Your task to perform on an android device: search for starred emails in the gmail app Image 0: 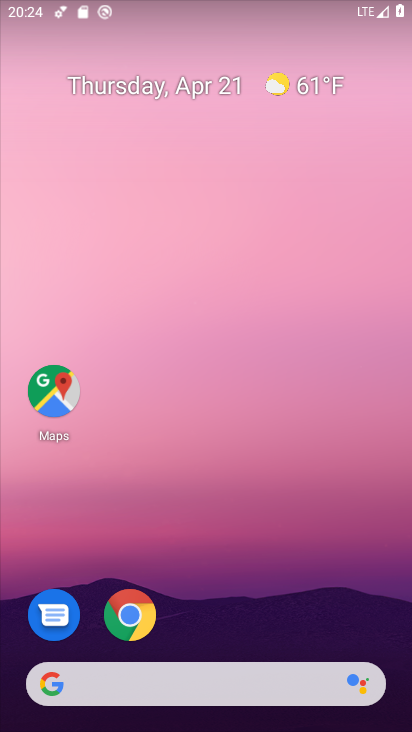
Step 0: drag from (249, 616) to (320, 126)
Your task to perform on an android device: search for starred emails in the gmail app Image 1: 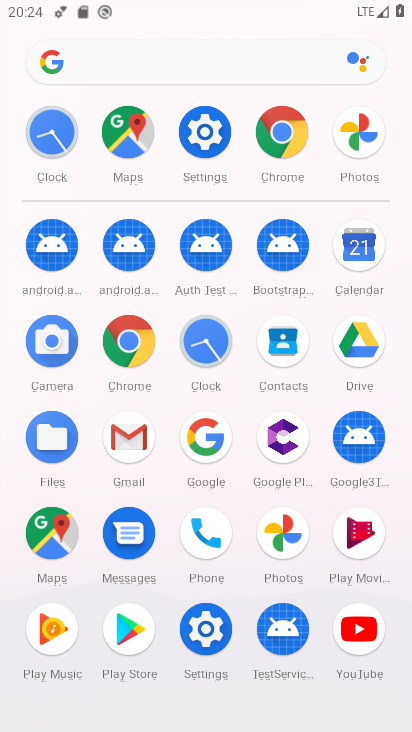
Step 1: click (127, 439)
Your task to perform on an android device: search for starred emails in the gmail app Image 2: 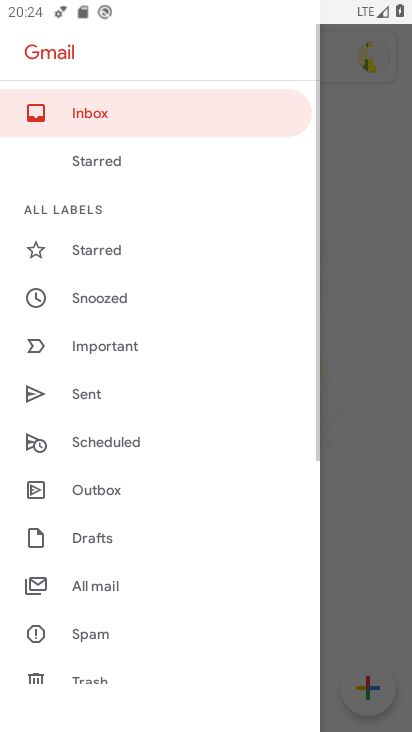
Step 2: drag from (139, 569) to (180, 8)
Your task to perform on an android device: search for starred emails in the gmail app Image 3: 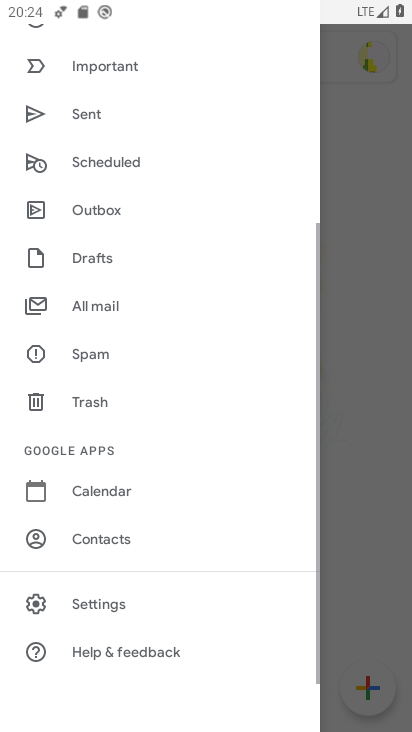
Step 3: drag from (110, 597) to (169, 256)
Your task to perform on an android device: search for starred emails in the gmail app Image 4: 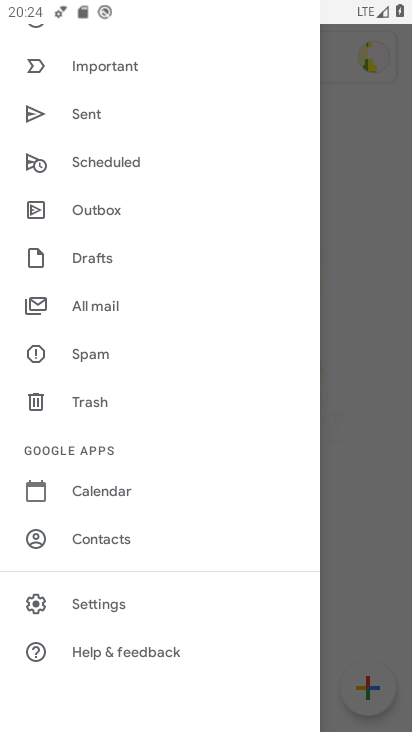
Step 4: drag from (133, 237) to (194, 592)
Your task to perform on an android device: search for starred emails in the gmail app Image 5: 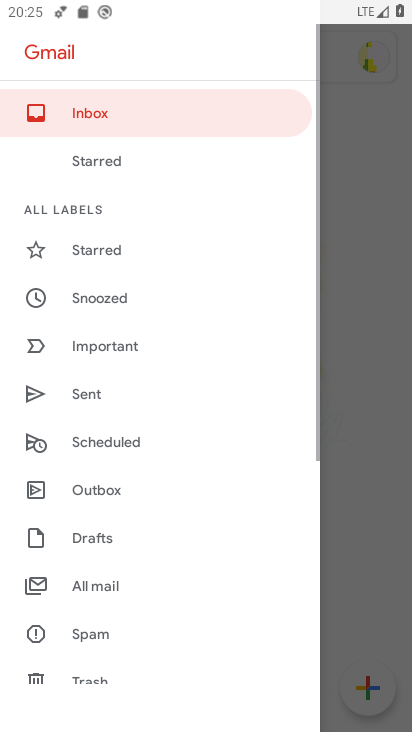
Step 5: click (99, 234)
Your task to perform on an android device: search for starred emails in the gmail app Image 6: 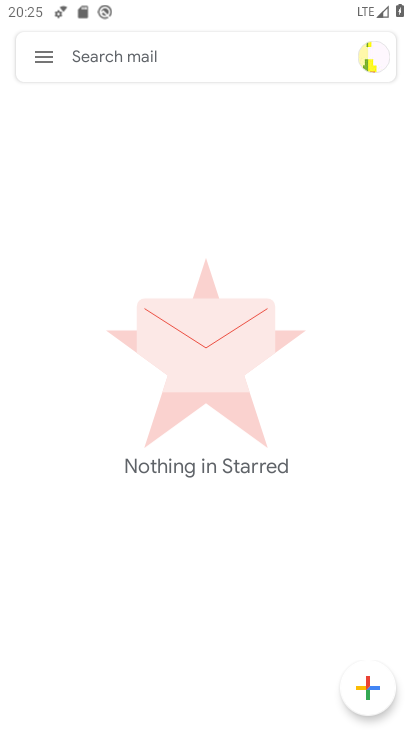
Step 6: drag from (199, 617) to (221, 181)
Your task to perform on an android device: search for starred emails in the gmail app Image 7: 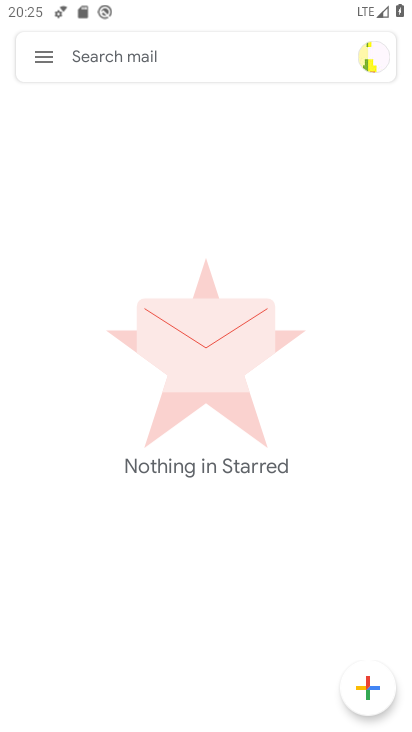
Step 7: drag from (206, 500) to (165, 105)
Your task to perform on an android device: search for starred emails in the gmail app Image 8: 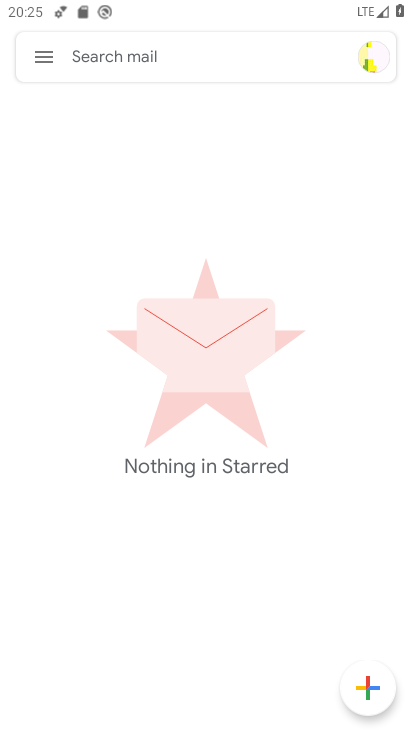
Step 8: click (36, 43)
Your task to perform on an android device: search for starred emails in the gmail app Image 9: 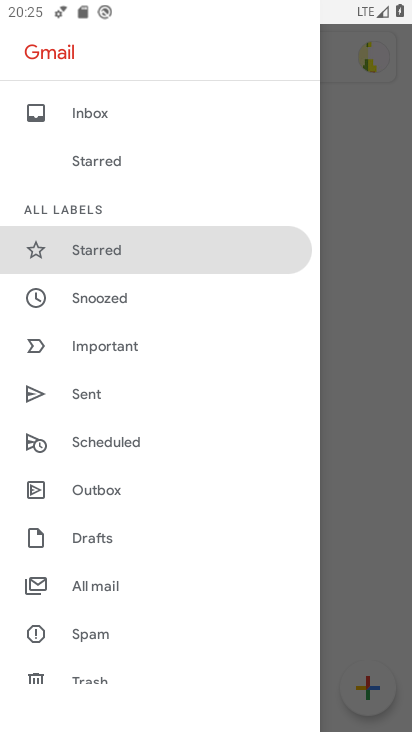
Step 9: task complete